Your task to perform on an android device: all mails in gmail Image 0: 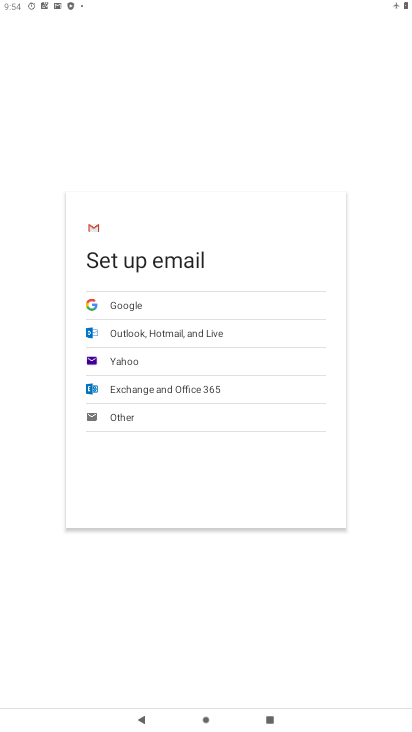
Step 0: press home button
Your task to perform on an android device: all mails in gmail Image 1: 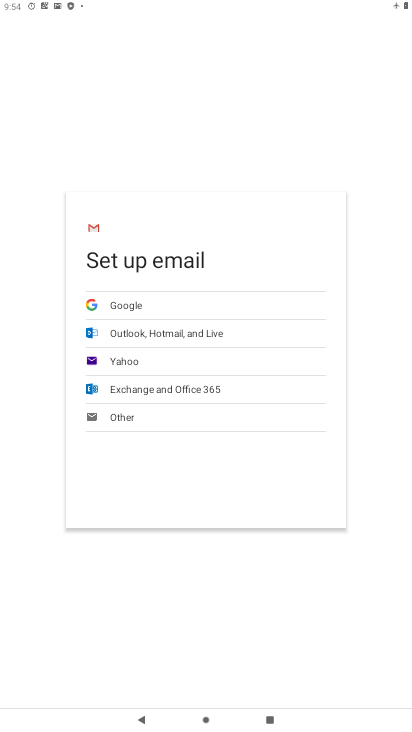
Step 1: press home button
Your task to perform on an android device: all mails in gmail Image 2: 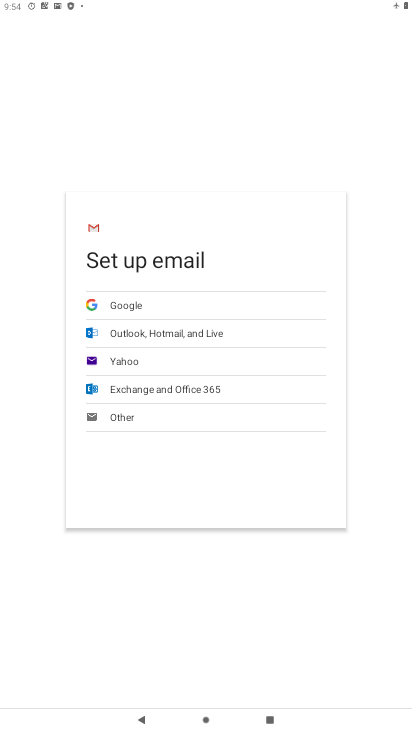
Step 2: drag from (199, 414) to (218, 115)
Your task to perform on an android device: all mails in gmail Image 3: 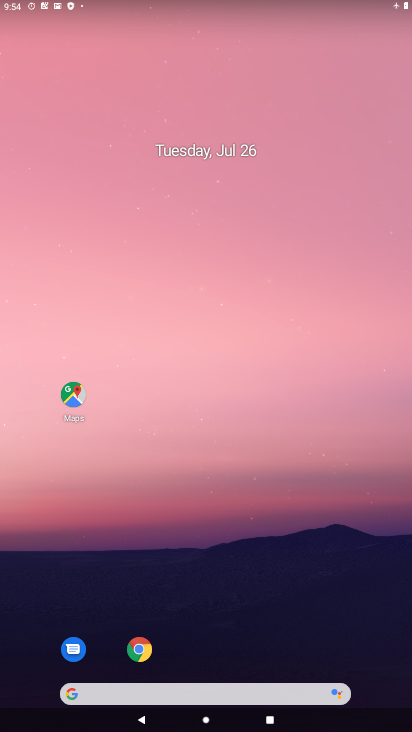
Step 3: drag from (202, 624) to (229, 168)
Your task to perform on an android device: all mails in gmail Image 4: 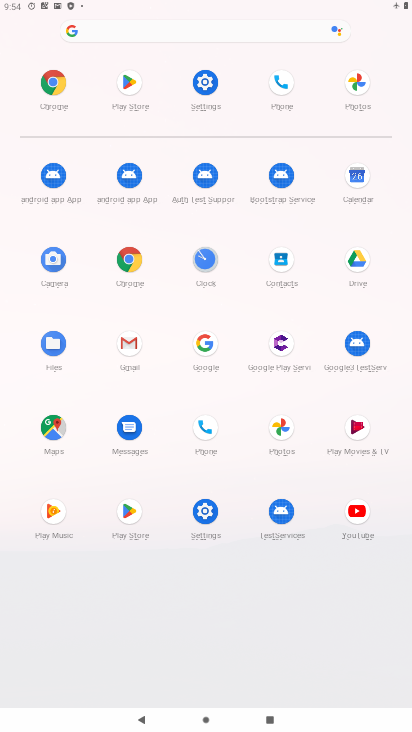
Step 4: click (118, 344)
Your task to perform on an android device: all mails in gmail Image 5: 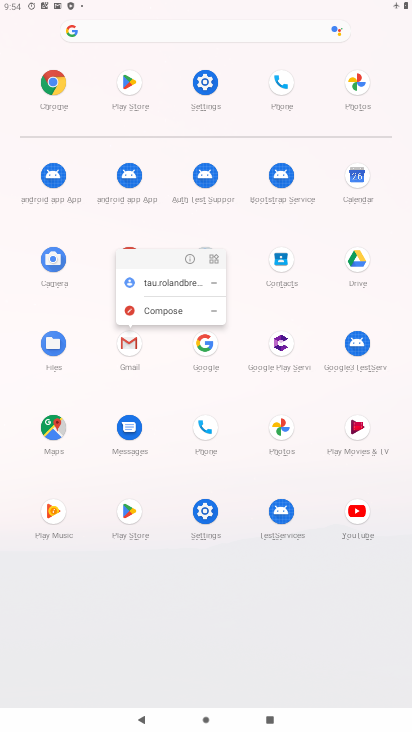
Step 5: click (193, 252)
Your task to perform on an android device: all mails in gmail Image 6: 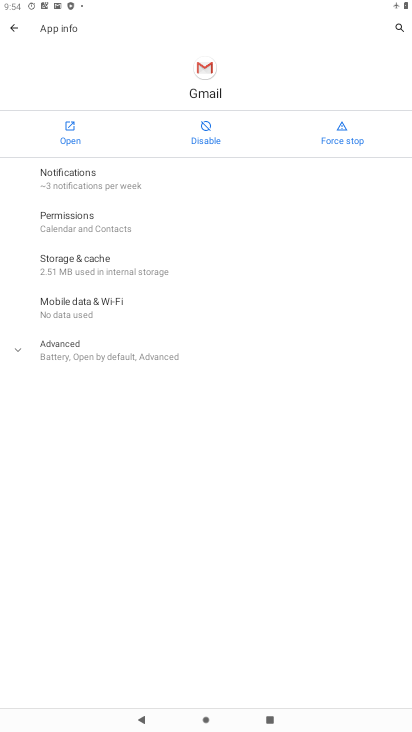
Step 6: click (62, 130)
Your task to perform on an android device: all mails in gmail Image 7: 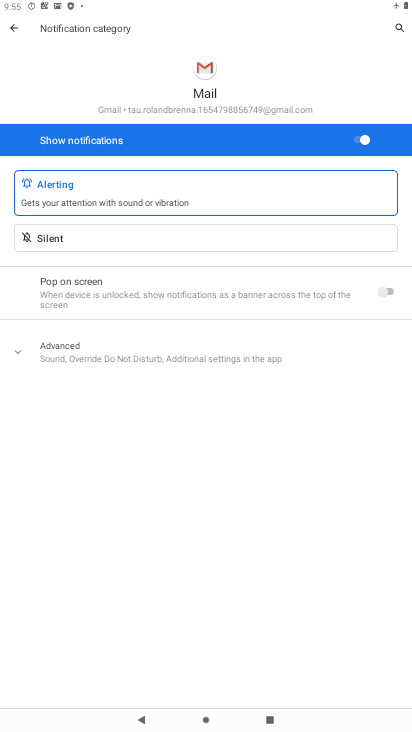
Step 7: click (12, 28)
Your task to perform on an android device: all mails in gmail Image 8: 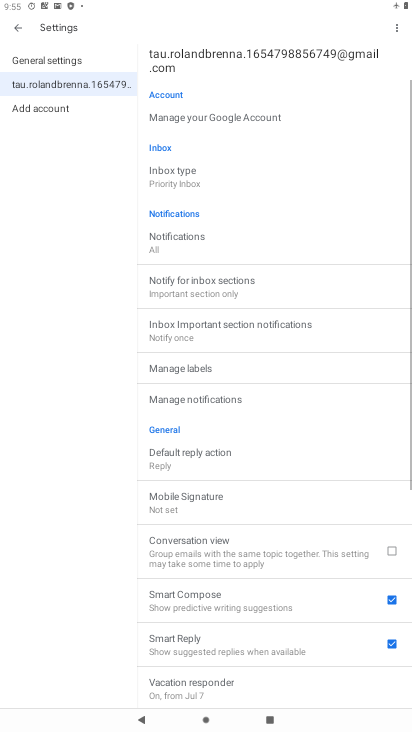
Step 8: click (12, 28)
Your task to perform on an android device: all mails in gmail Image 9: 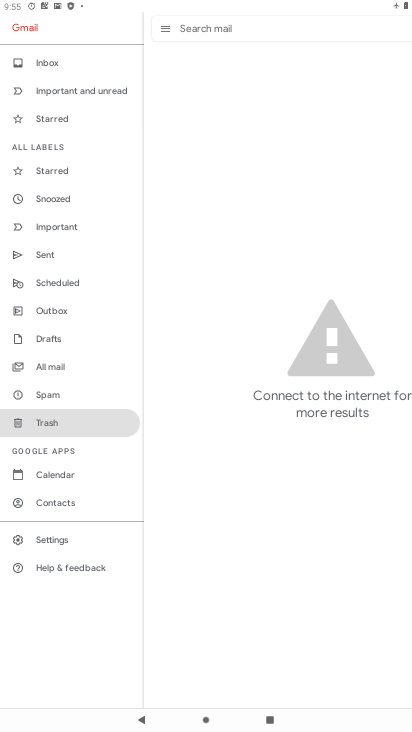
Step 9: drag from (272, 324) to (276, 276)
Your task to perform on an android device: all mails in gmail Image 10: 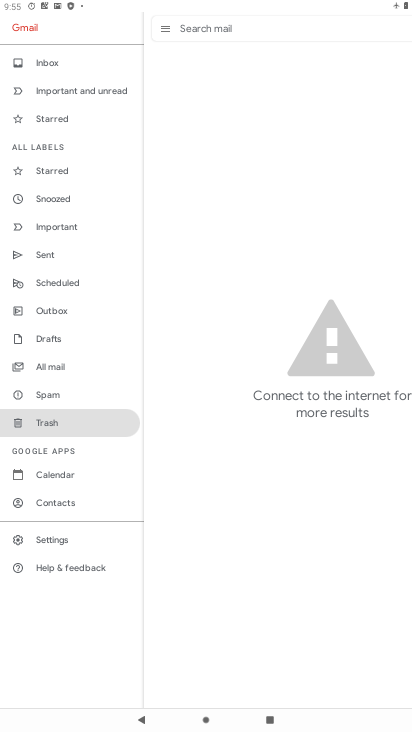
Step 10: click (54, 363)
Your task to perform on an android device: all mails in gmail Image 11: 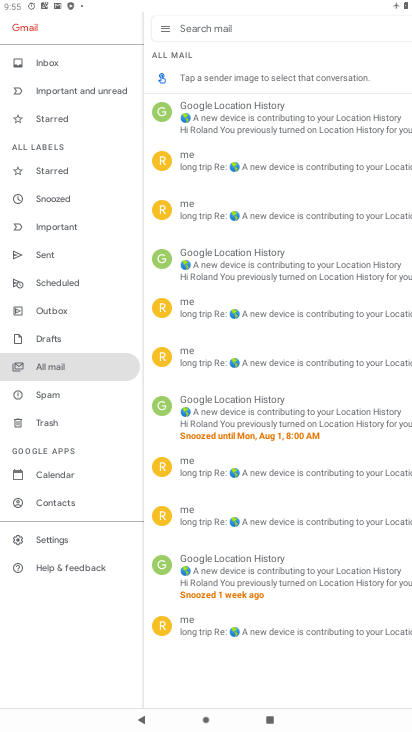
Step 11: task complete